Your task to perform on an android device: Clear all items from cart on walmart. Search for "bose soundlink mini" on walmart, select the first entry, and add it to the cart. Image 0: 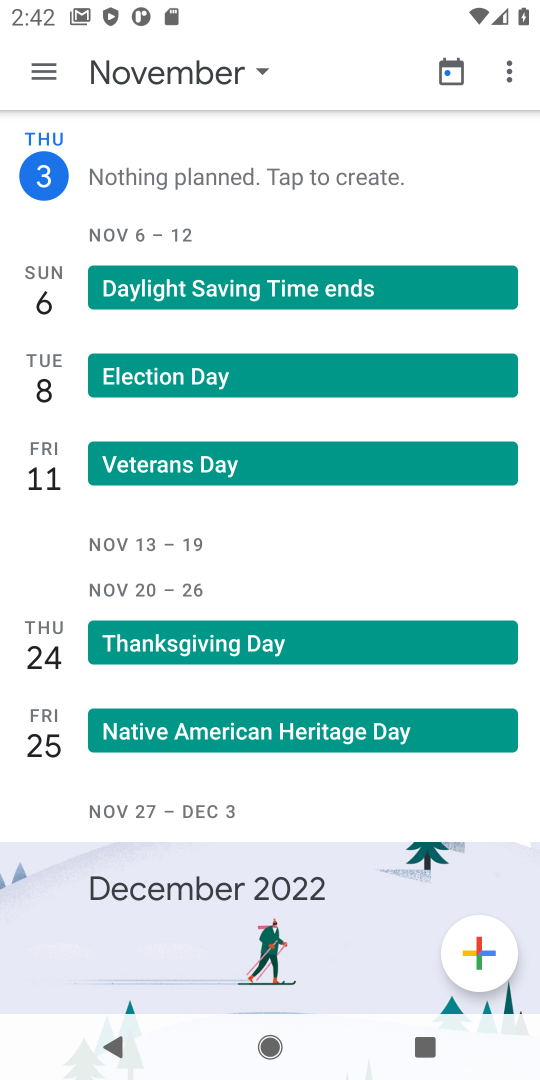
Step 0: press home button
Your task to perform on an android device: Clear all items from cart on walmart. Search for "bose soundlink mini" on walmart, select the first entry, and add it to the cart. Image 1: 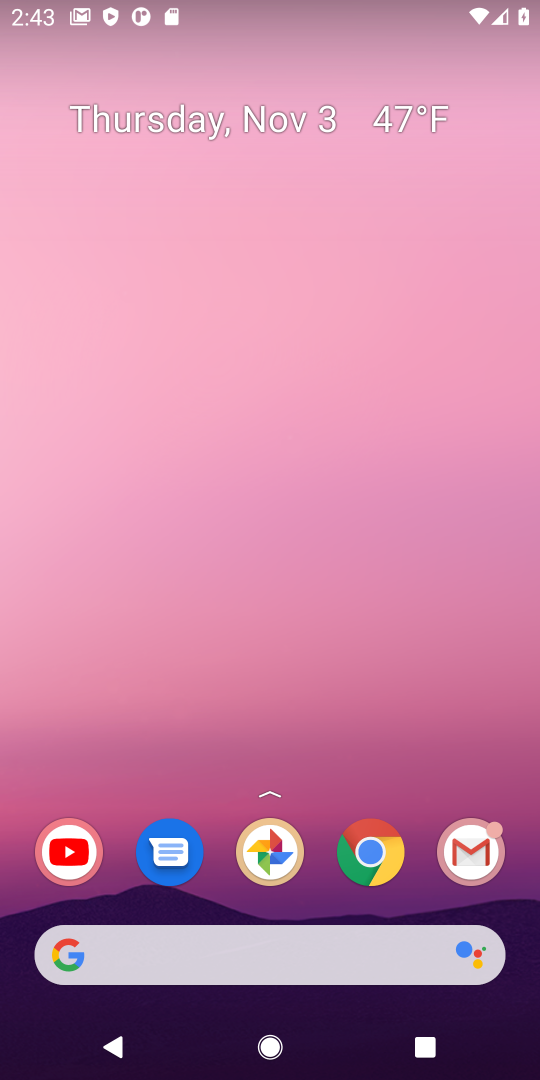
Step 1: click (384, 845)
Your task to perform on an android device: Clear all items from cart on walmart. Search for "bose soundlink mini" on walmart, select the first entry, and add it to the cart. Image 2: 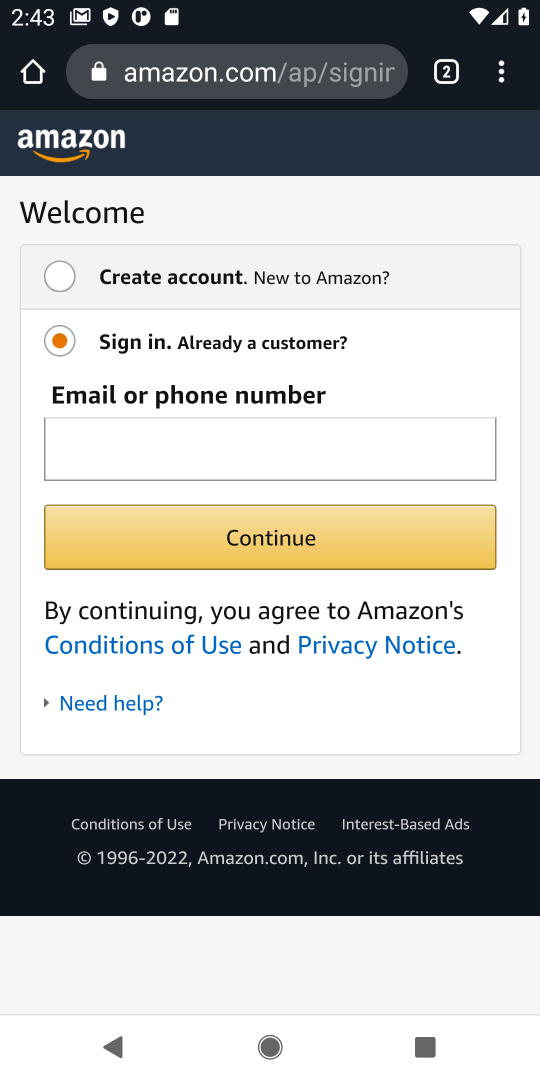
Step 2: click (239, 69)
Your task to perform on an android device: Clear all items from cart on walmart. Search for "bose soundlink mini" on walmart, select the first entry, and add it to the cart. Image 3: 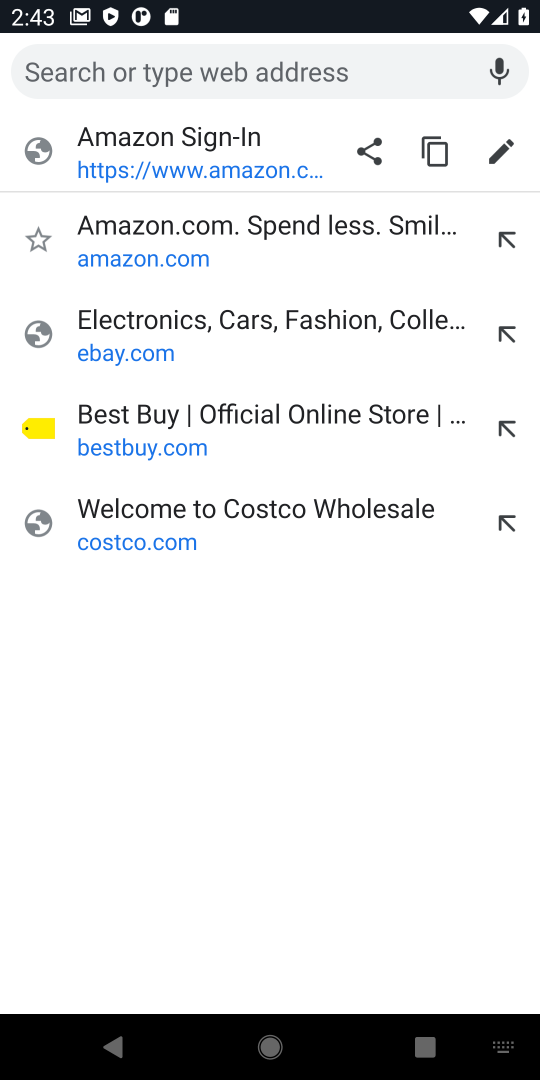
Step 3: type "walmart.com"
Your task to perform on an android device: Clear all items from cart on walmart. Search for "bose soundlink mini" on walmart, select the first entry, and add it to the cart. Image 4: 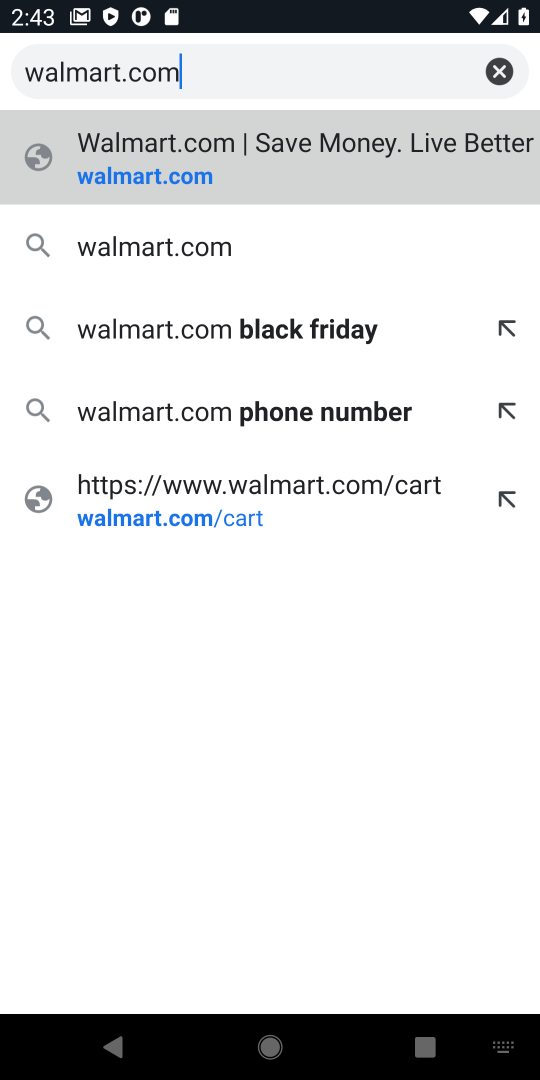
Step 4: click (149, 182)
Your task to perform on an android device: Clear all items from cart on walmart. Search for "bose soundlink mini" on walmart, select the first entry, and add it to the cart. Image 5: 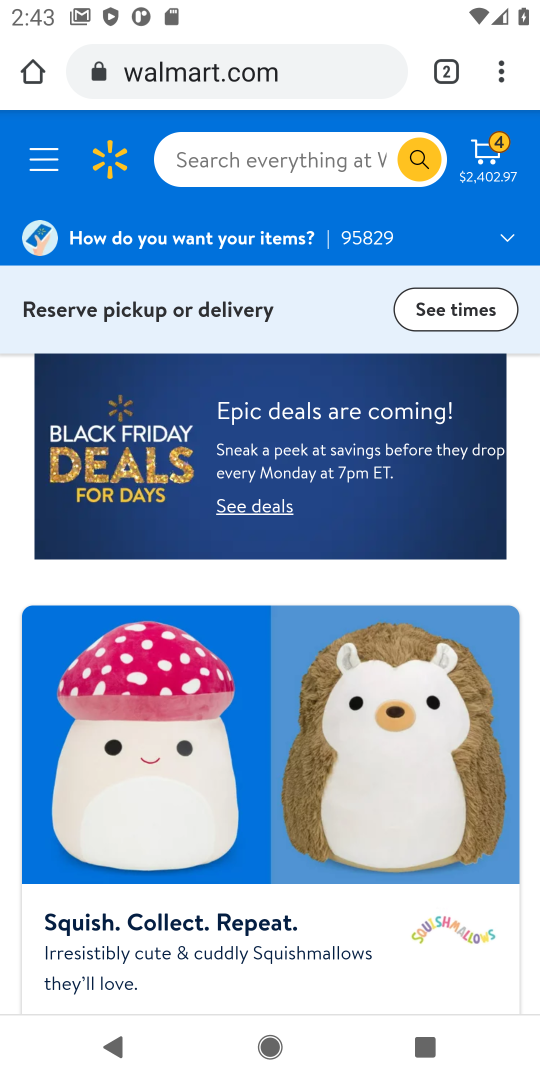
Step 5: click (488, 158)
Your task to perform on an android device: Clear all items from cart on walmart. Search for "bose soundlink mini" on walmart, select the first entry, and add it to the cart. Image 6: 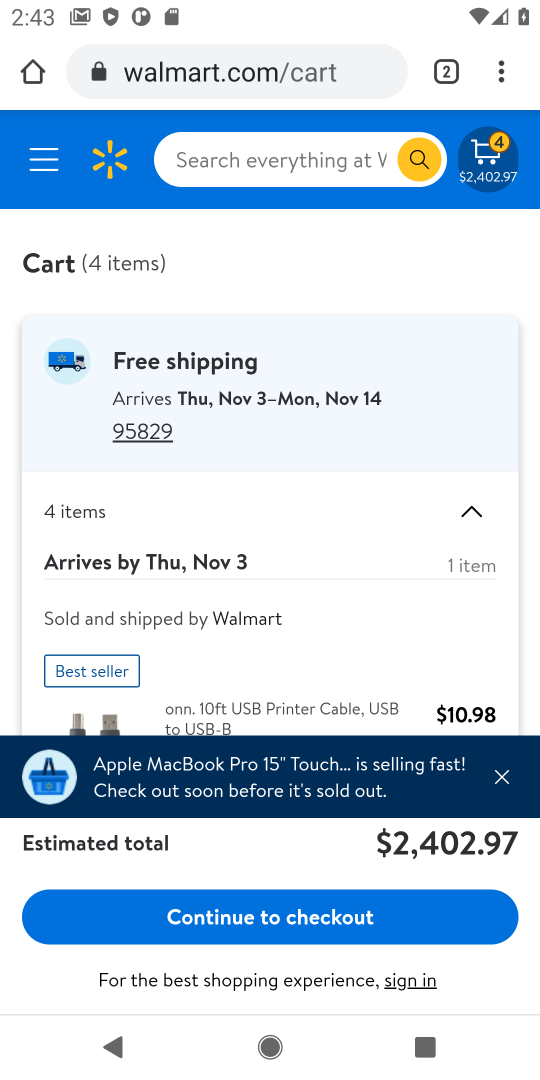
Step 6: drag from (321, 599) to (332, 287)
Your task to perform on an android device: Clear all items from cart on walmart. Search for "bose soundlink mini" on walmart, select the first entry, and add it to the cart. Image 7: 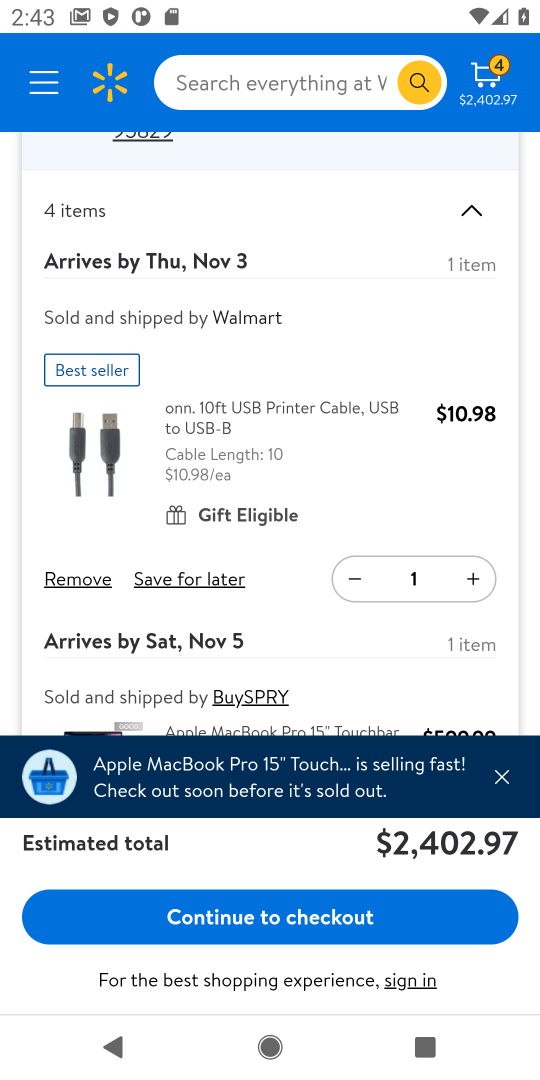
Step 7: click (67, 572)
Your task to perform on an android device: Clear all items from cart on walmart. Search for "bose soundlink mini" on walmart, select the first entry, and add it to the cart. Image 8: 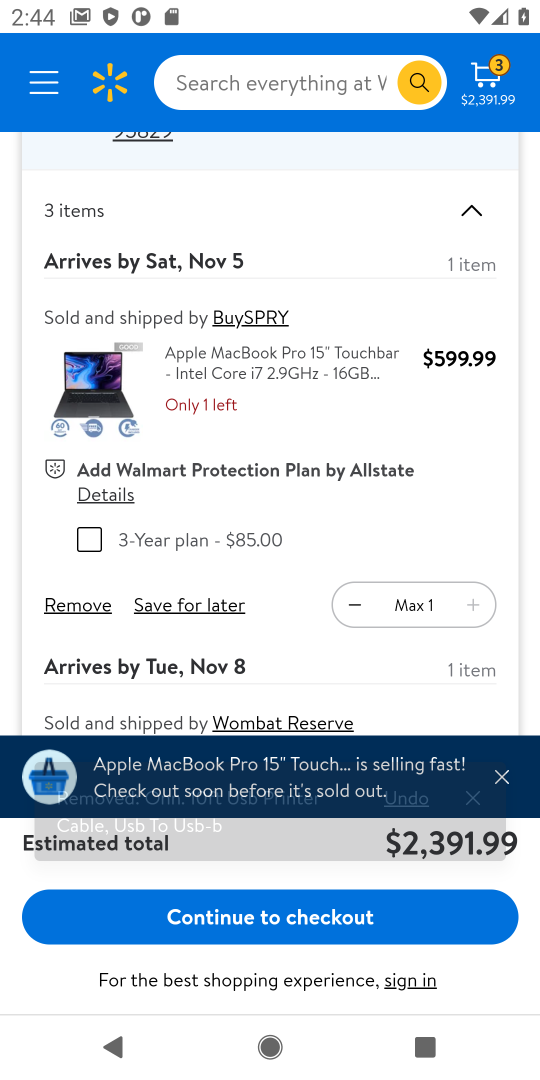
Step 8: click (74, 598)
Your task to perform on an android device: Clear all items from cart on walmart. Search for "bose soundlink mini" on walmart, select the first entry, and add it to the cart. Image 9: 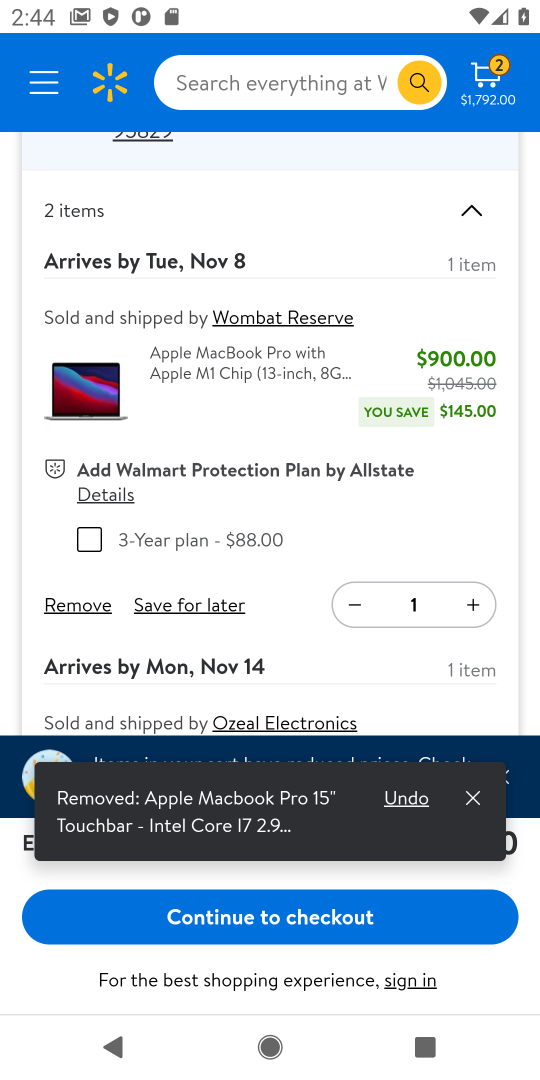
Step 9: click (74, 596)
Your task to perform on an android device: Clear all items from cart on walmart. Search for "bose soundlink mini" on walmart, select the first entry, and add it to the cart. Image 10: 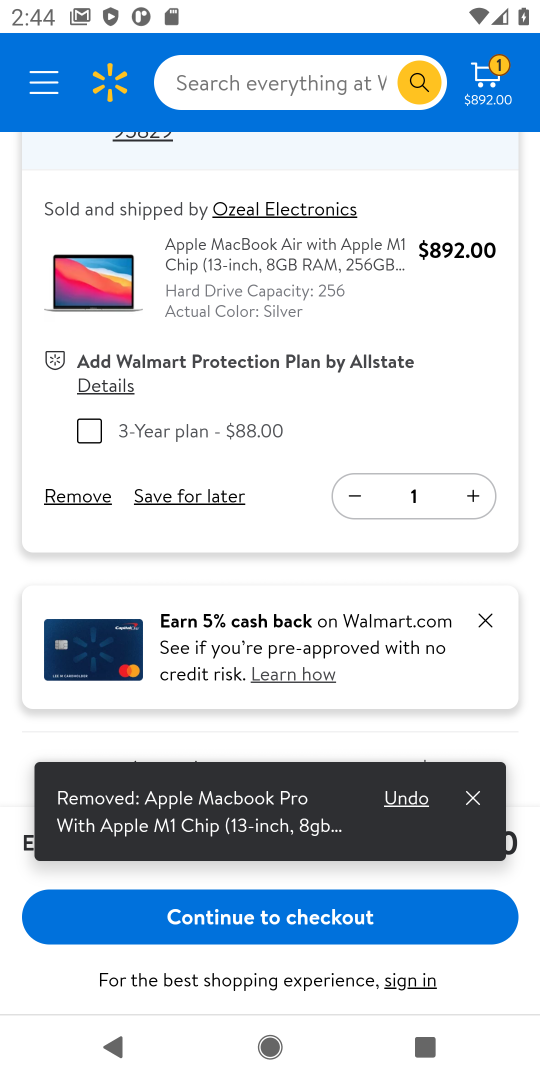
Step 10: click (63, 496)
Your task to perform on an android device: Clear all items from cart on walmart. Search for "bose soundlink mini" on walmart, select the first entry, and add it to the cart. Image 11: 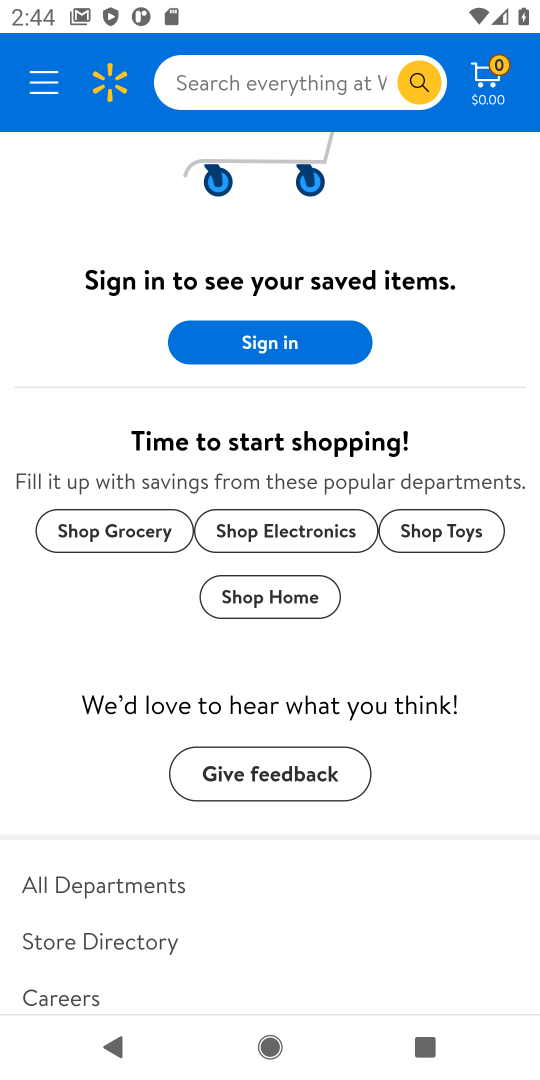
Step 11: click (268, 82)
Your task to perform on an android device: Clear all items from cart on walmart. Search for "bose soundlink mini" on walmart, select the first entry, and add it to the cart. Image 12: 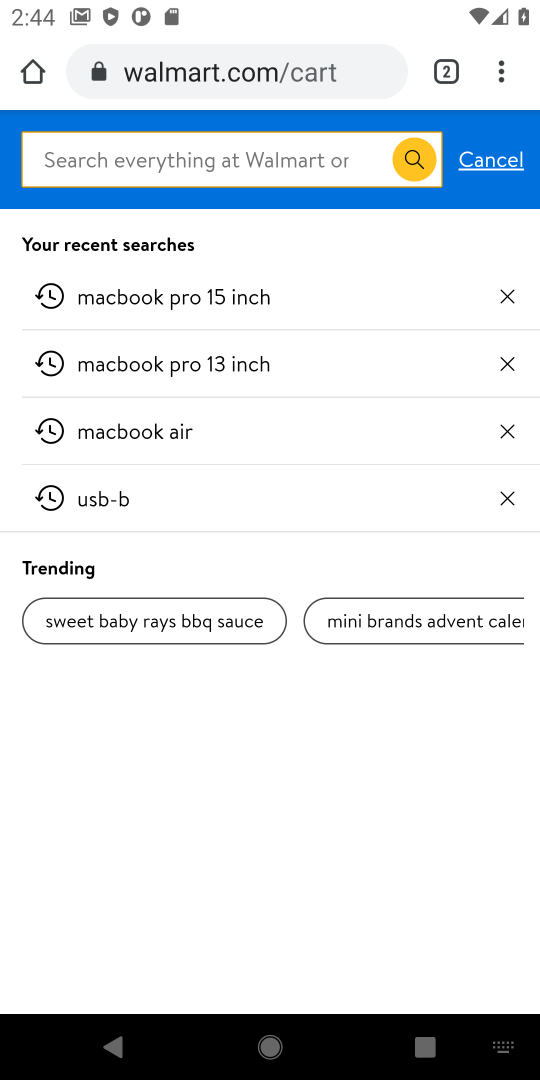
Step 12: type "bose soundlink mini"
Your task to perform on an android device: Clear all items from cart on walmart. Search for "bose soundlink mini" on walmart, select the first entry, and add it to the cart. Image 13: 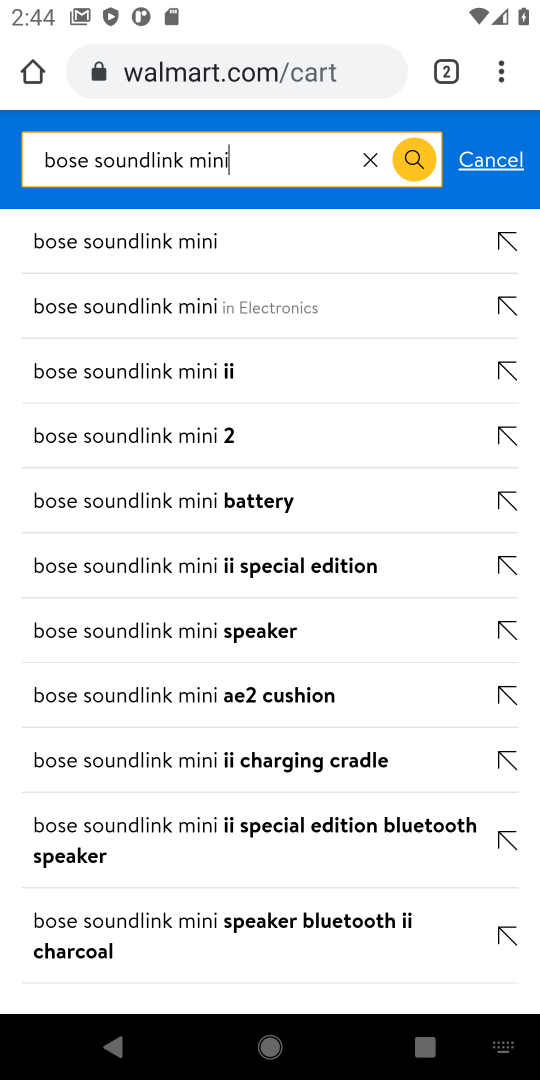
Step 13: click (145, 254)
Your task to perform on an android device: Clear all items from cart on walmart. Search for "bose soundlink mini" on walmart, select the first entry, and add it to the cart. Image 14: 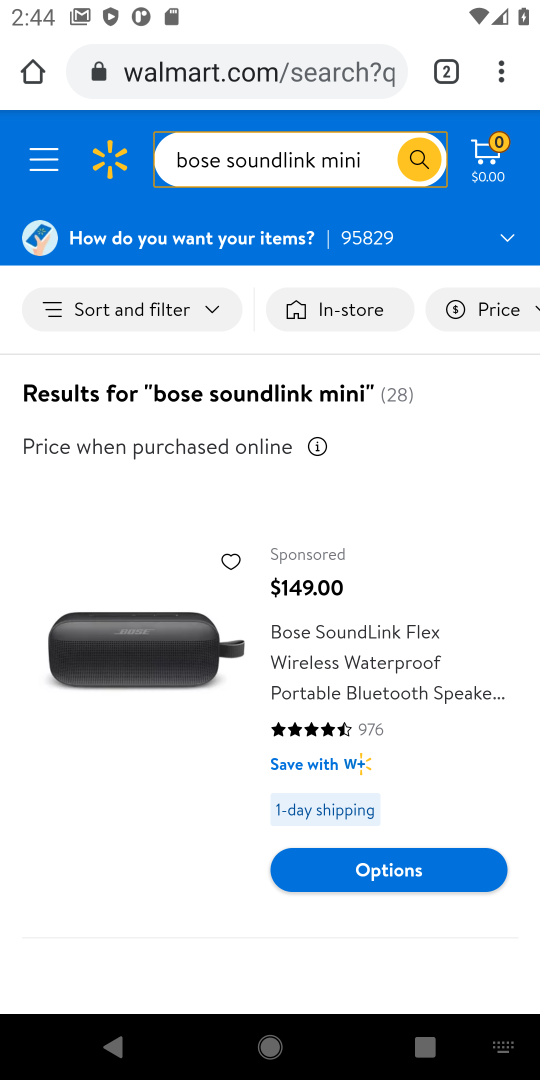
Step 14: drag from (218, 705) to (219, 480)
Your task to perform on an android device: Clear all items from cart on walmart. Search for "bose soundlink mini" on walmart, select the first entry, and add it to the cart. Image 15: 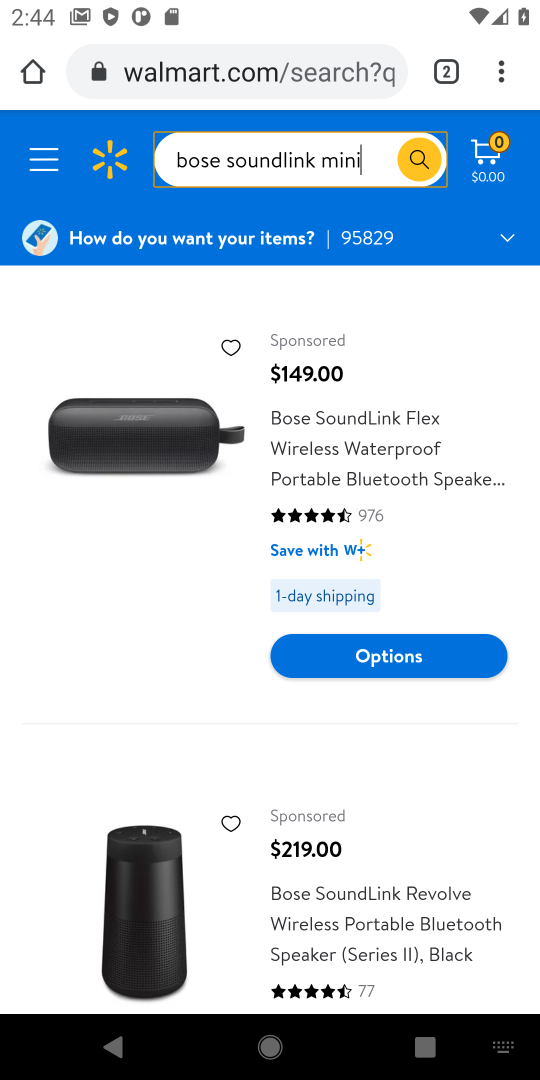
Step 15: click (173, 478)
Your task to perform on an android device: Clear all items from cart on walmart. Search for "bose soundlink mini" on walmart, select the first entry, and add it to the cart. Image 16: 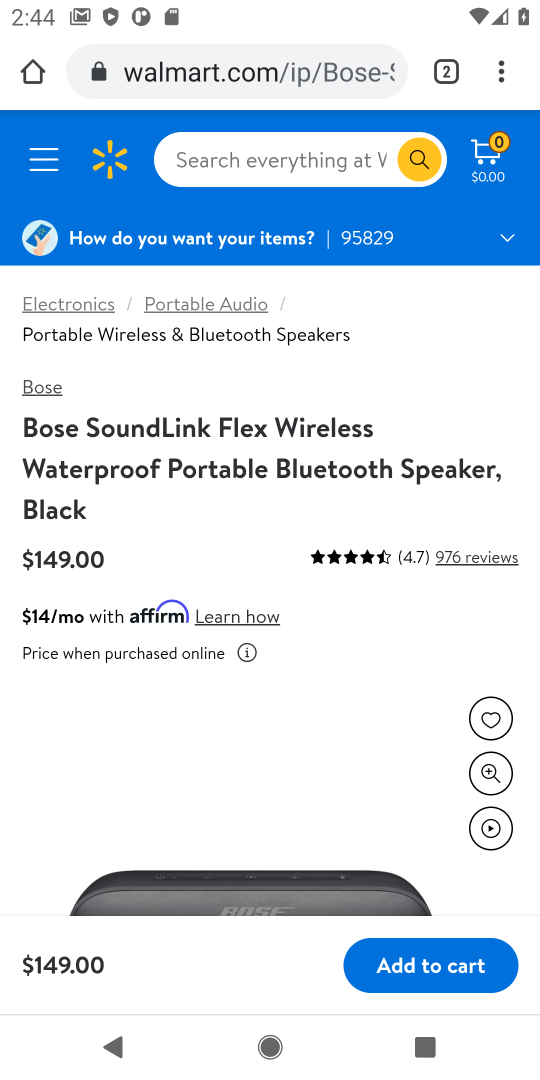
Step 16: task complete